Your task to perform on an android device: turn notification dots off Image 0: 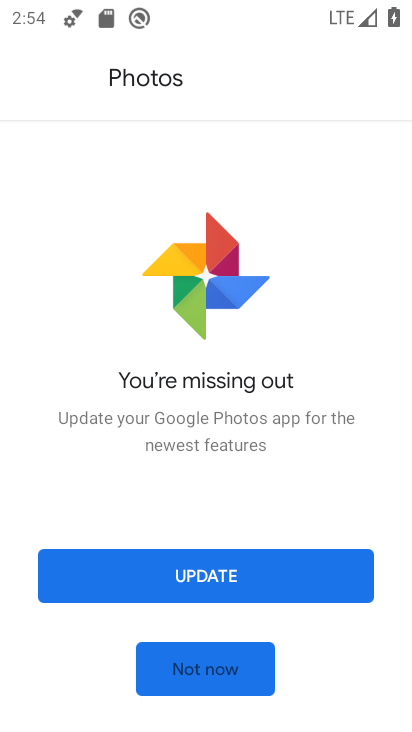
Step 0: press home button
Your task to perform on an android device: turn notification dots off Image 1: 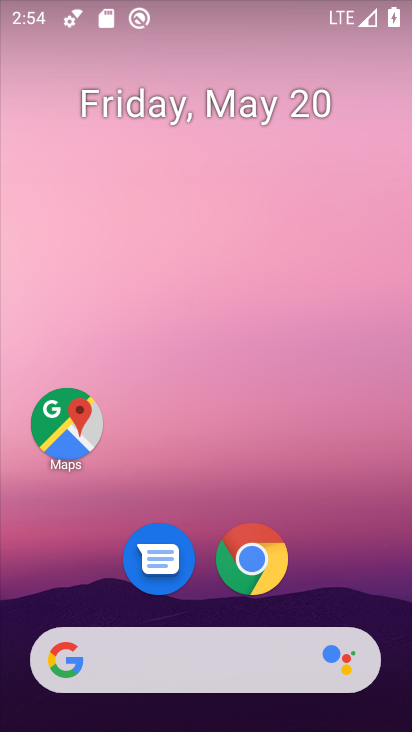
Step 1: drag from (198, 487) to (223, 67)
Your task to perform on an android device: turn notification dots off Image 2: 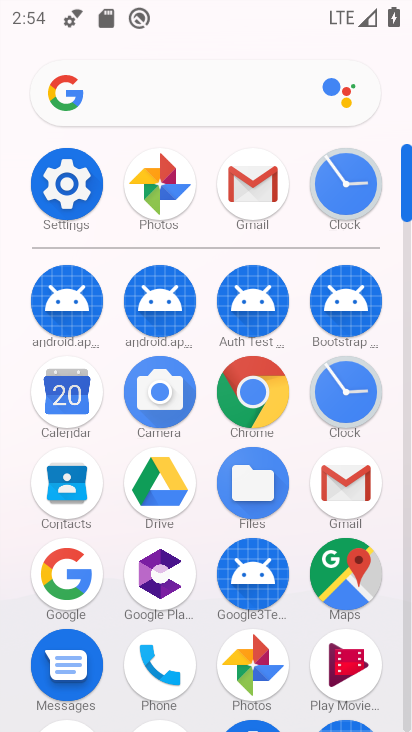
Step 2: click (68, 186)
Your task to perform on an android device: turn notification dots off Image 3: 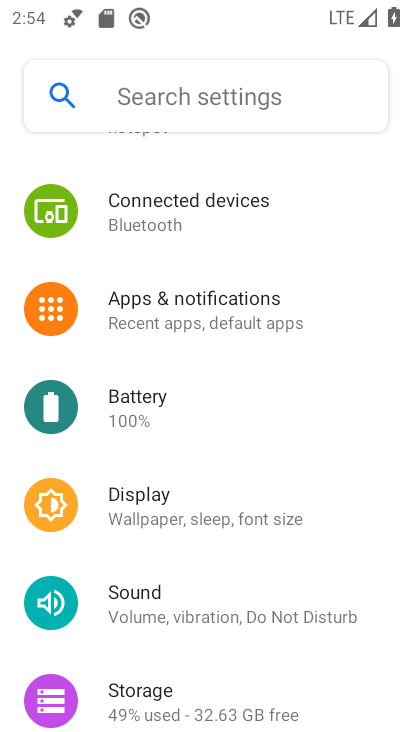
Step 3: click (211, 313)
Your task to perform on an android device: turn notification dots off Image 4: 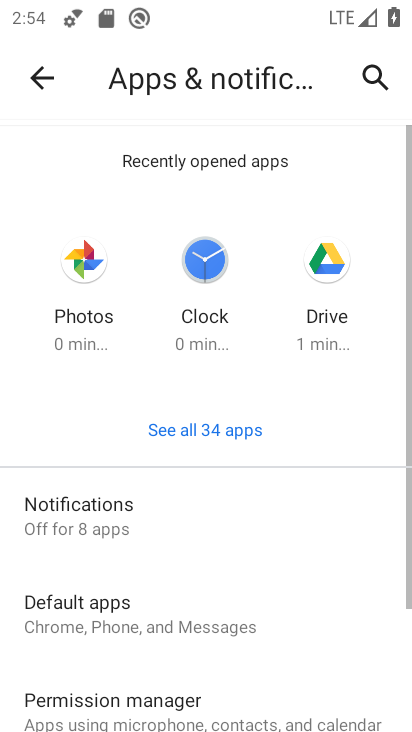
Step 4: click (235, 520)
Your task to perform on an android device: turn notification dots off Image 5: 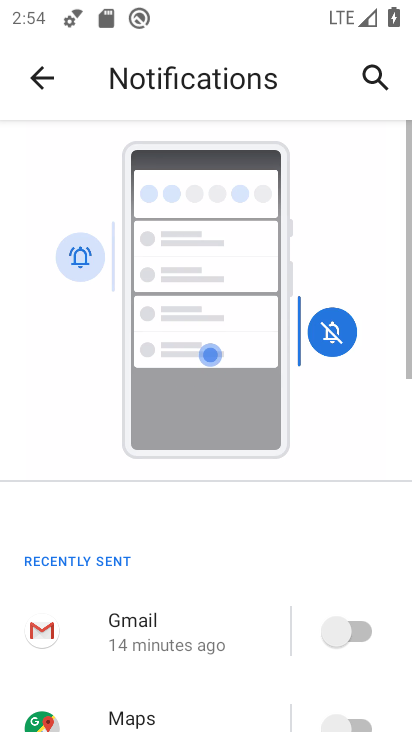
Step 5: drag from (233, 609) to (235, 196)
Your task to perform on an android device: turn notification dots off Image 6: 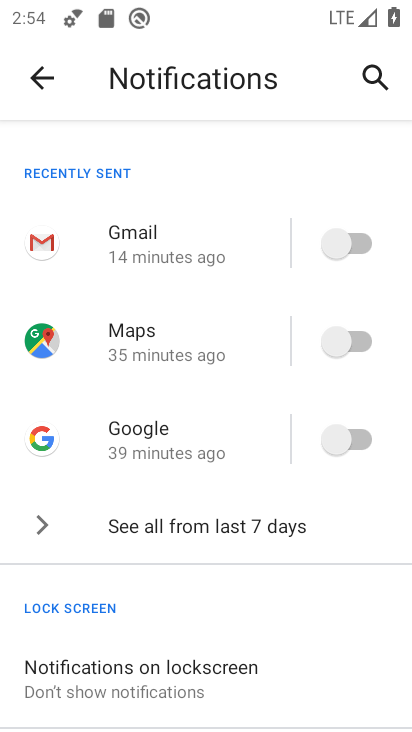
Step 6: drag from (201, 579) to (210, 363)
Your task to perform on an android device: turn notification dots off Image 7: 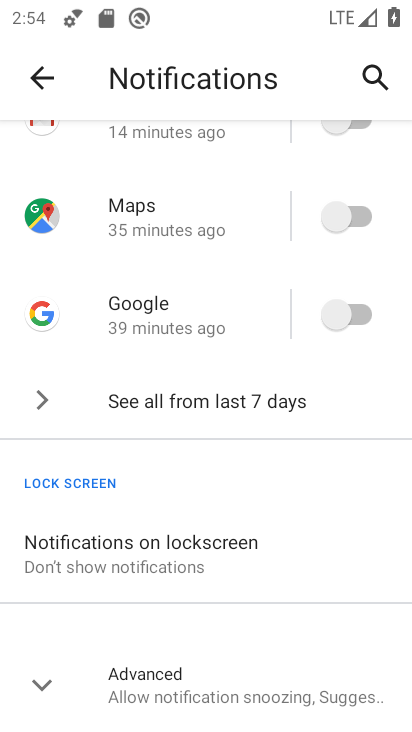
Step 7: click (42, 675)
Your task to perform on an android device: turn notification dots off Image 8: 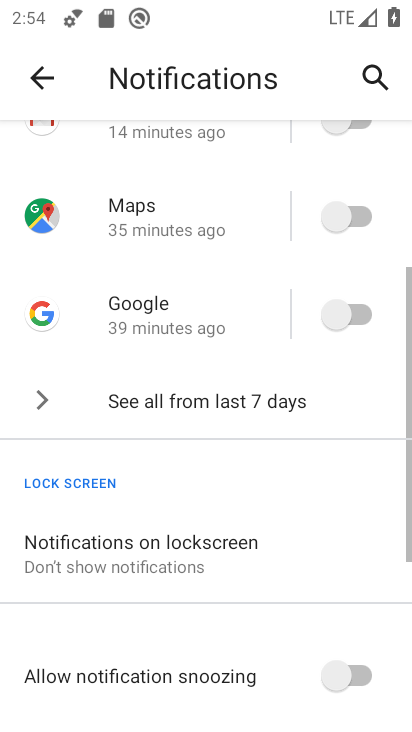
Step 8: task complete